Your task to perform on an android device: turn off location Image 0: 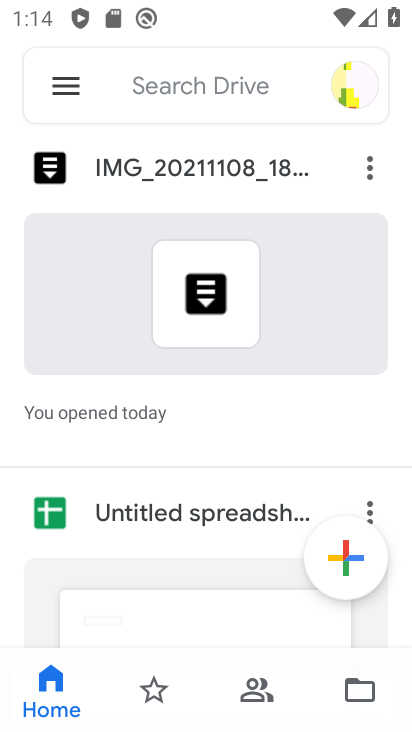
Step 0: press home button
Your task to perform on an android device: turn off location Image 1: 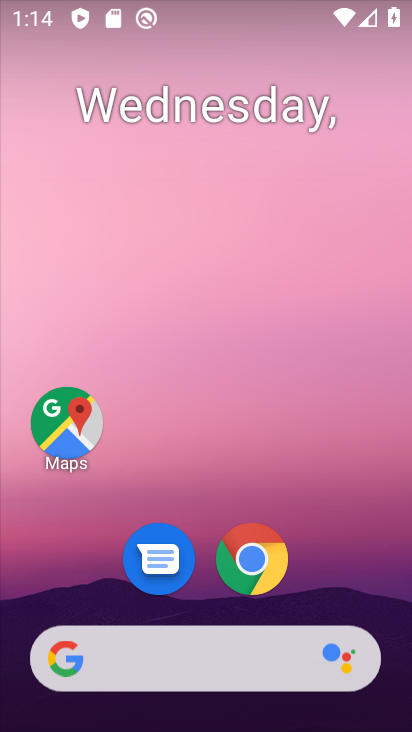
Step 1: drag from (180, 428) to (295, 22)
Your task to perform on an android device: turn off location Image 2: 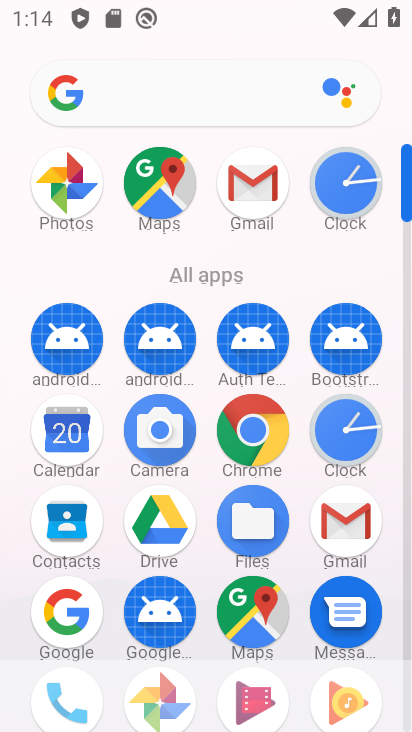
Step 2: drag from (275, 508) to (285, 182)
Your task to perform on an android device: turn off location Image 3: 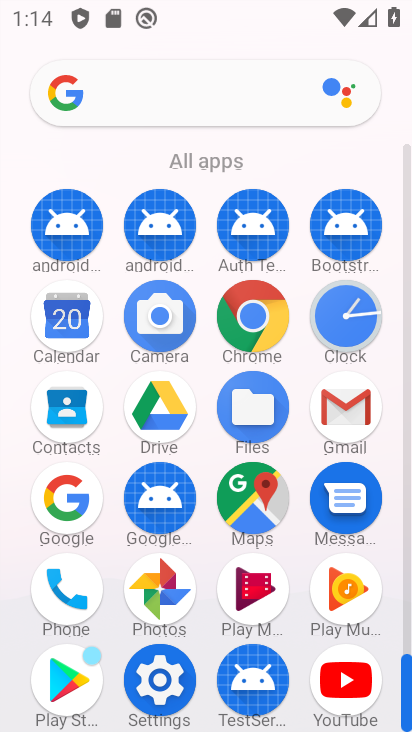
Step 3: click (163, 681)
Your task to perform on an android device: turn off location Image 4: 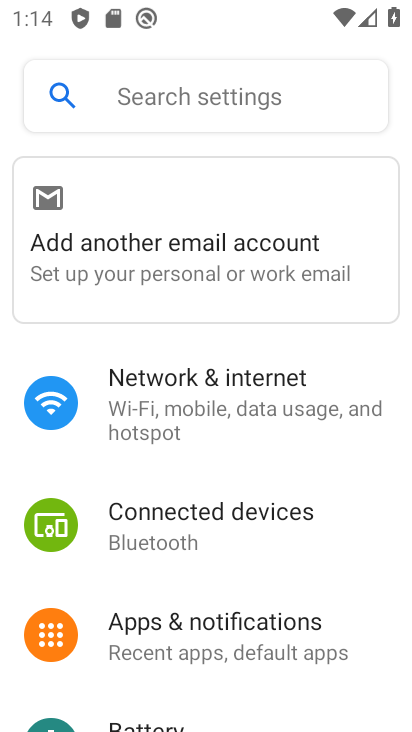
Step 4: drag from (192, 497) to (196, 144)
Your task to perform on an android device: turn off location Image 5: 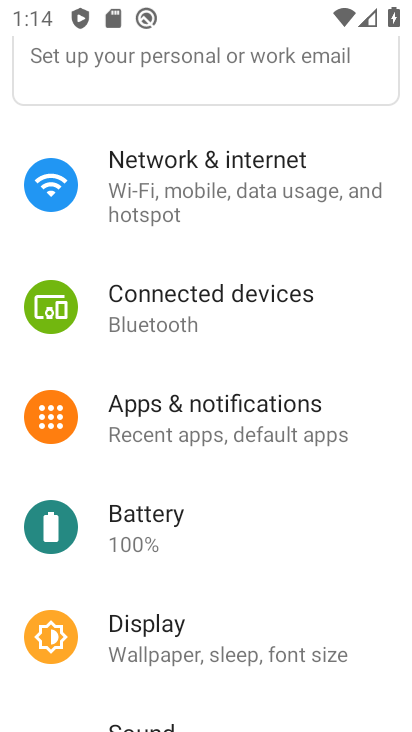
Step 5: drag from (214, 574) to (217, 278)
Your task to perform on an android device: turn off location Image 6: 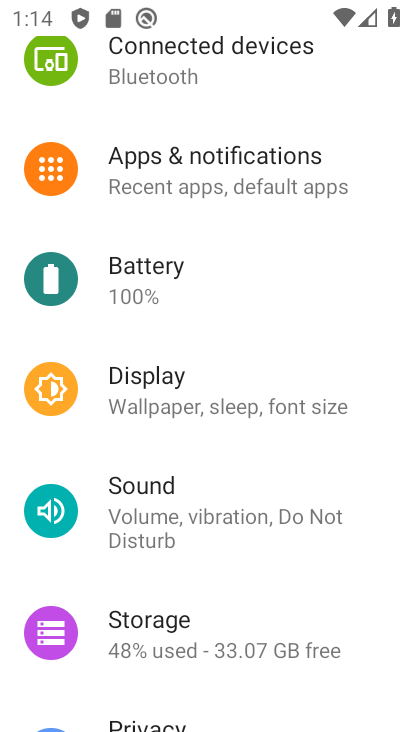
Step 6: drag from (208, 629) to (218, 275)
Your task to perform on an android device: turn off location Image 7: 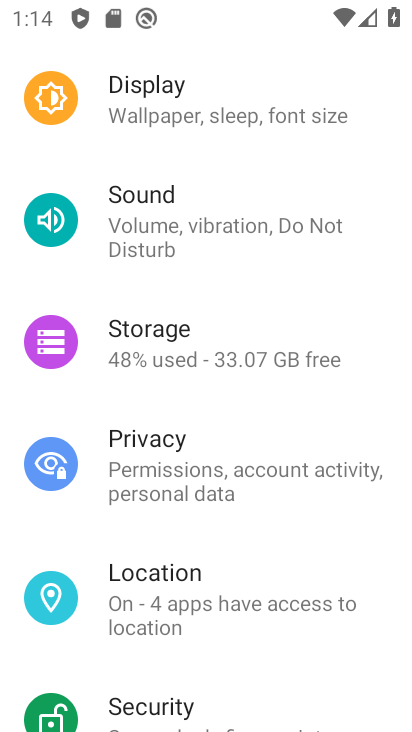
Step 7: click (190, 577)
Your task to perform on an android device: turn off location Image 8: 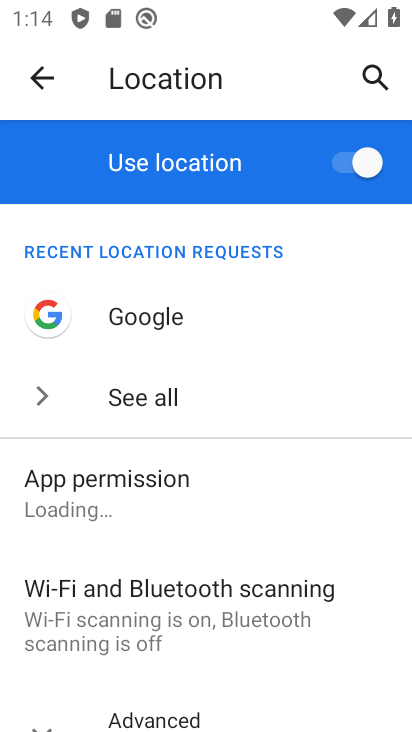
Step 8: click (343, 165)
Your task to perform on an android device: turn off location Image 9: 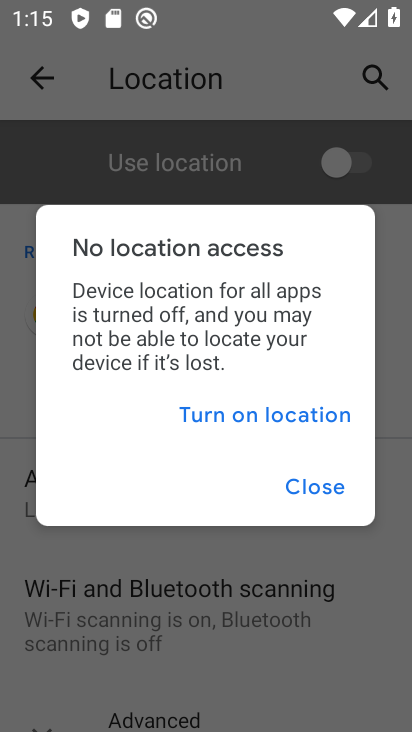
Step 9: task complete